Your task to perform on an android device: Go to Reddit.com Image 0: 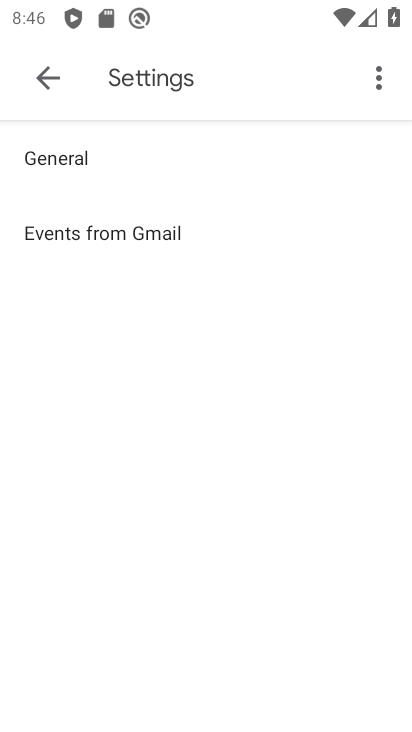
Step 0: press home button
Your task to perform on an android device: Go to Reddit.com Image 1: 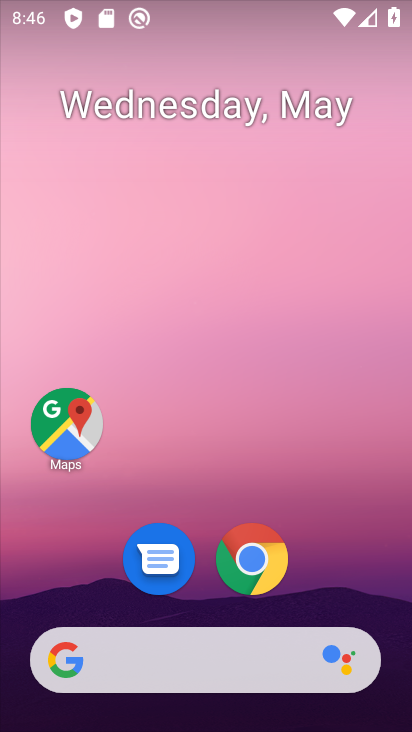
Step 1: click (209, 665)
Your task to perform on an android device: Go to Reddit.com Image 2: 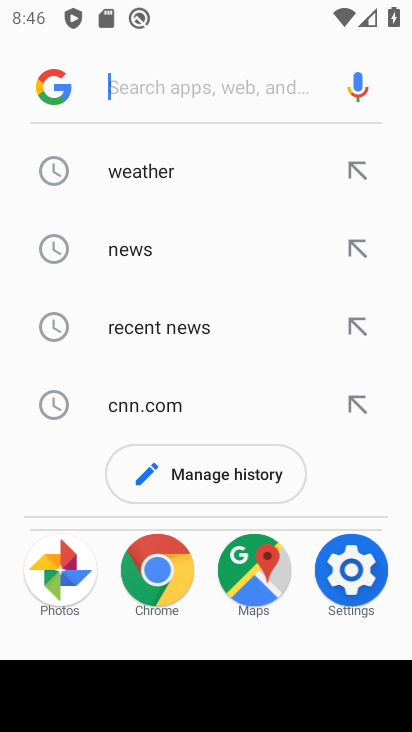
Step 2: type "Reddit.com"
Your task to perform on an android device: Go to Reddit.com Image 3: 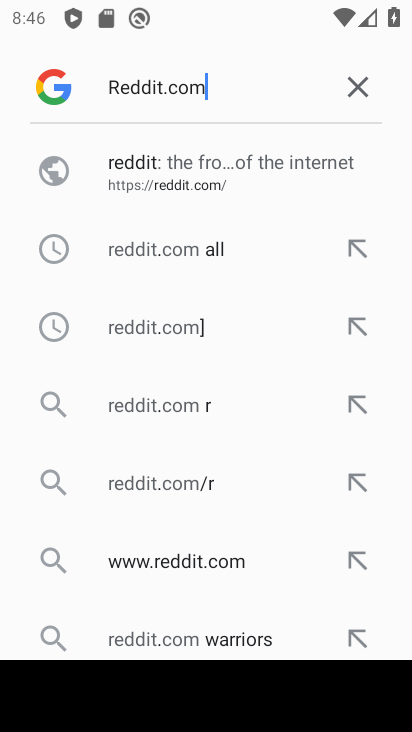
Step 3: click (207, 184)
Your task to perform on an android device: Go to Reddit.com Image 4: 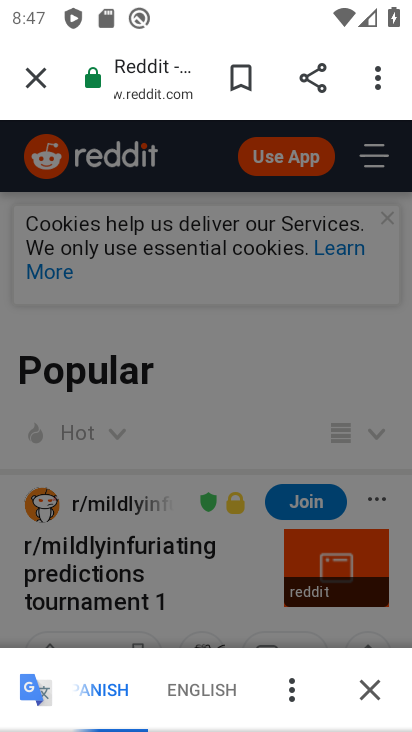
Step 4: click (211, 710)
Your task to perform on an android device: Go to Reddit.com Image 5: 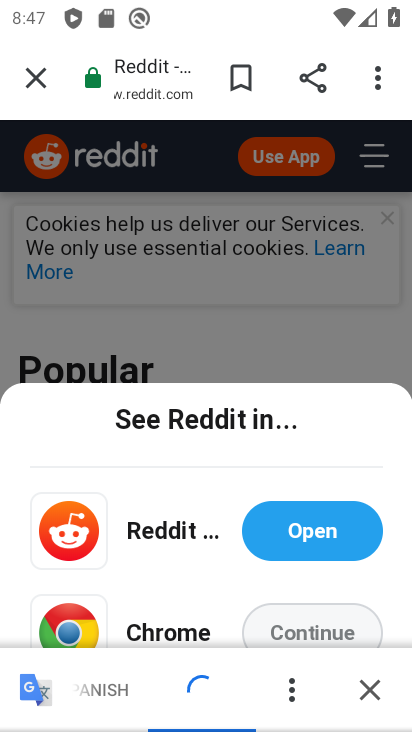
Step 5: click (317, 628)
Your task to perform on an android device: Go to Reddit.com Image 6: 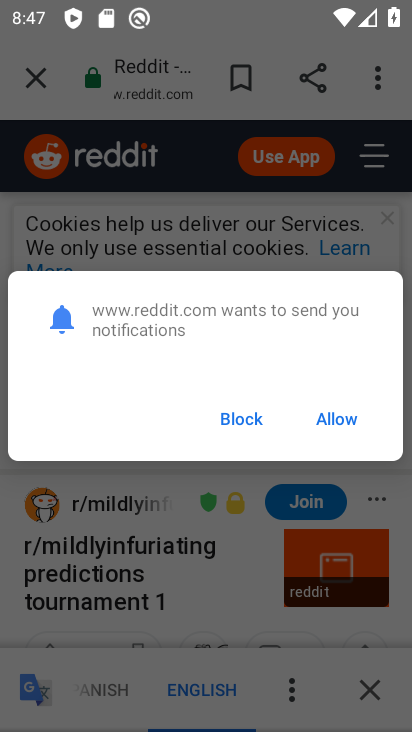
Step 6: click (354, 424)
Your task to perform on an android device: Go to Reddit.com Image 7: 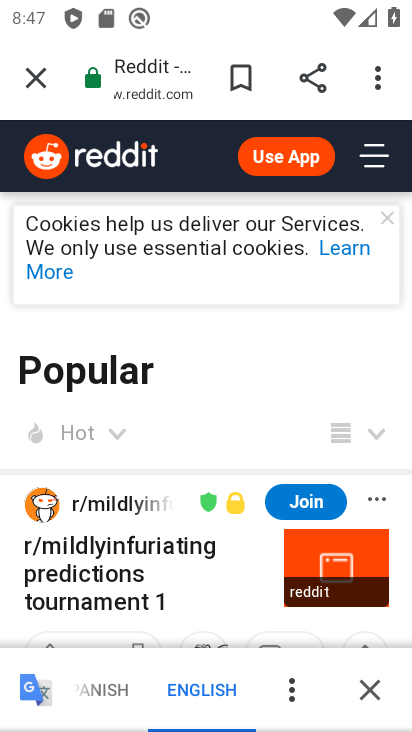
Step 7: click (364, 667)
Your task to perform on an android device: Go to Reddit.com Image 8: 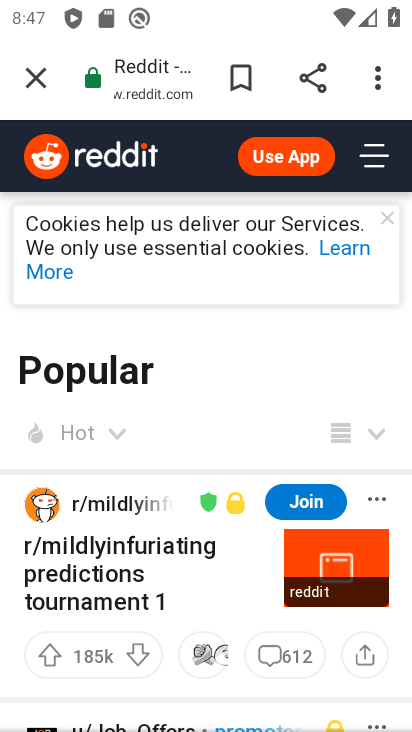
Step 8: task complete